Your task to perform on an android device: move an email to a new category in the gmail app Image 0: 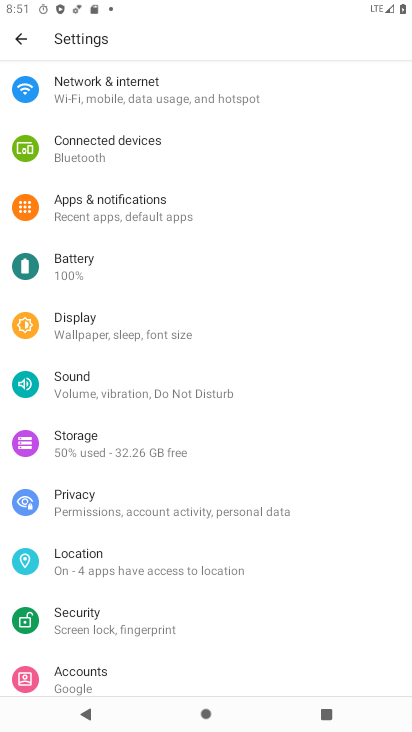
Step 0: press home button
Your task to perform on an android device: move an email to a new category in the gmail app Image 1: 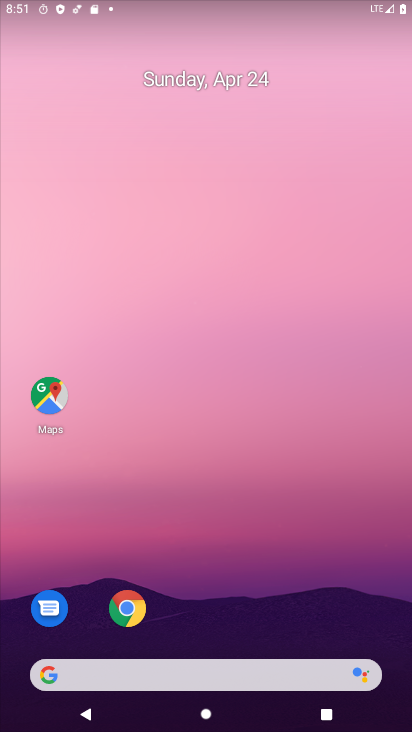
Step 1: drag from (236, 562) to (302, 68)
Your task to perform on an android device: move an email to a new category in the gmail app Image 2: 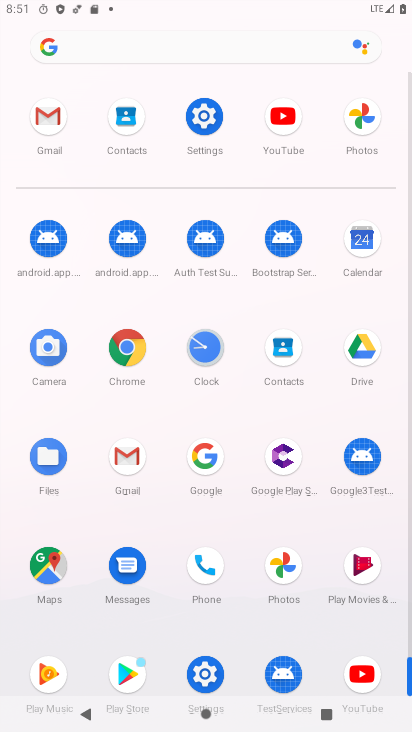
Step 2: click (54, 119)
Your task to perform on an android device: move an email to a new category in the gmail app Image 3: 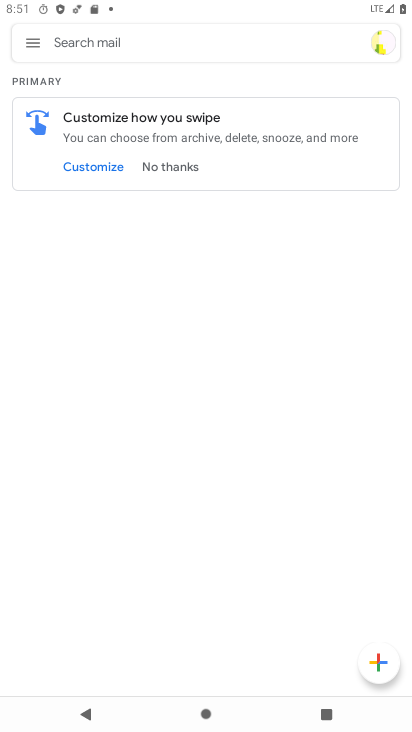
Step 3: click (38, 38)
Your task to perform on an android device: move an email to a new category in the gmail app Image 4: 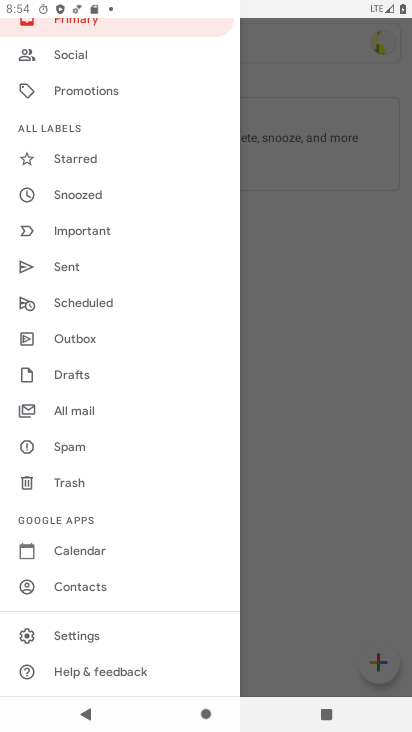
Step 4: click (93, 405)
Your task to perform on an android device: move an email to a new category in the gmail app Image 5: 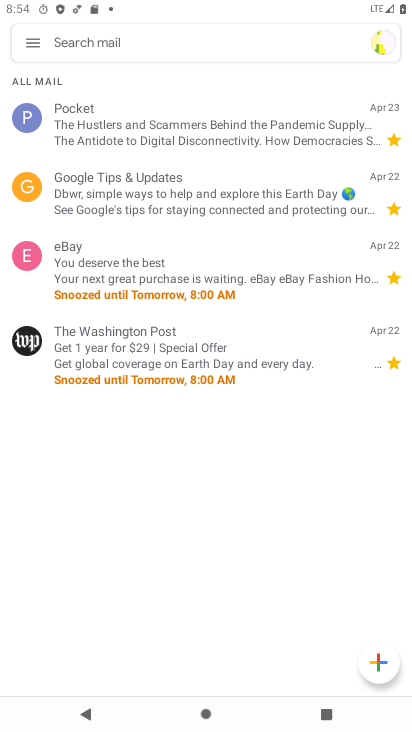
Step 5: click (198, 126)
Your task to perform on an android device: move an email to a new category in the gmail app Image 6: 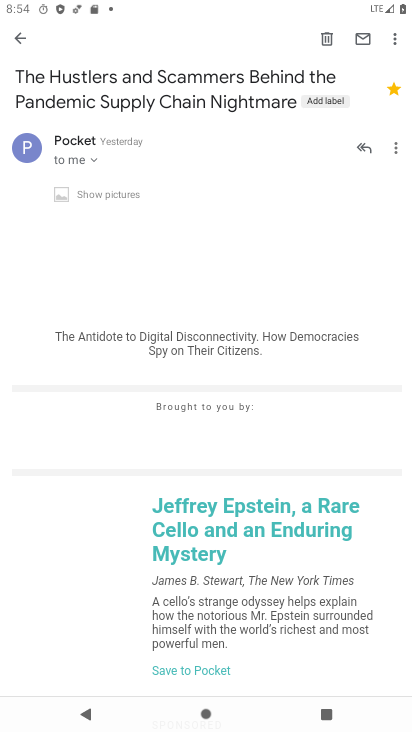
Step 6: click (395, 36)
Your task to perform on an android device: move an email to a new category in the gmail app Image 7: 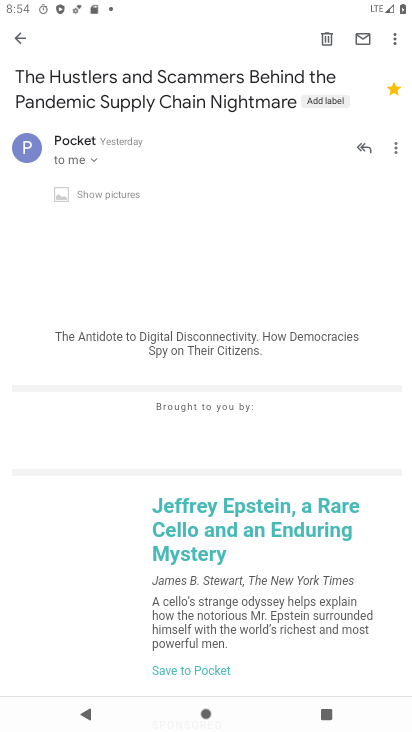
Step 7: click (395, 36)
Your task to perform on an android device: move an email to a new category in the gmail app Image 8: 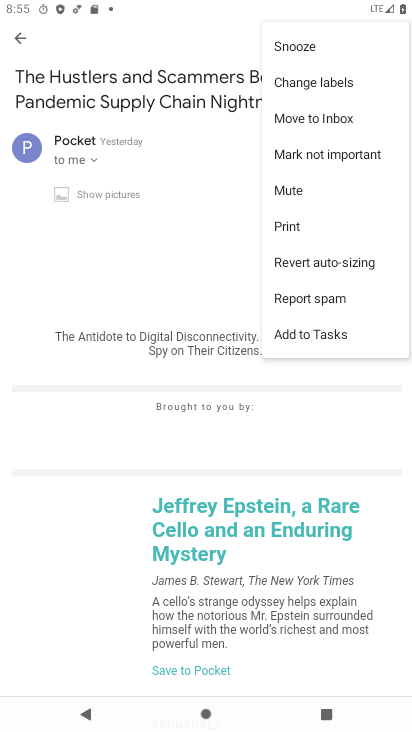
Step 8: click (330, 116)
Your task to perform on an android device: move an email to a new category in the gmail app Image 9: 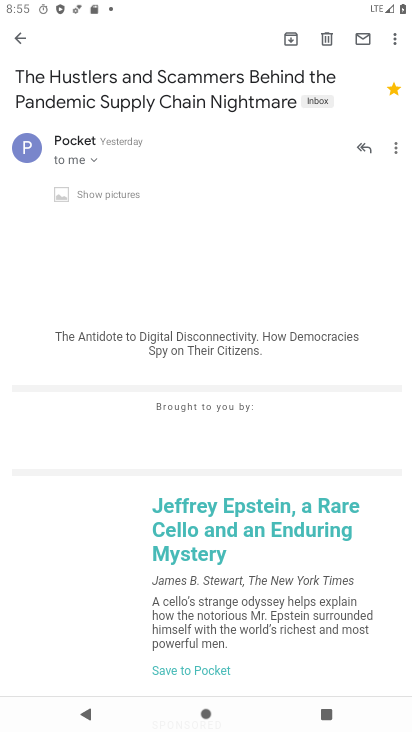
Step 9: task complete